Your task to perform on an android device: What's a good restaurant in Atlanta? Image 0: 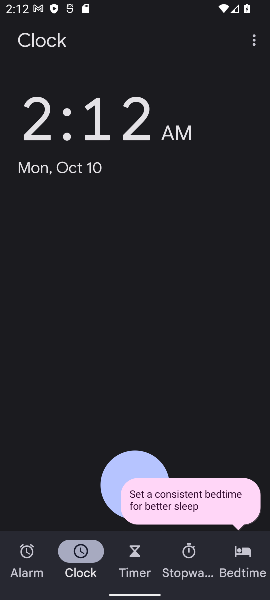
Step 0: press home button
Your task to perform on an android device: What's a good restaurant in Atlanta? Image 1: 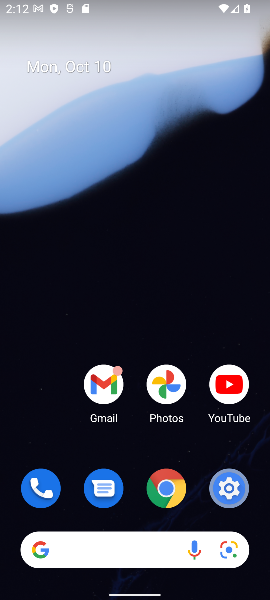
Step 1: click (122, 555)
Your task to perform on an android device: What's a good restaurant in Atlanta? Image 2: 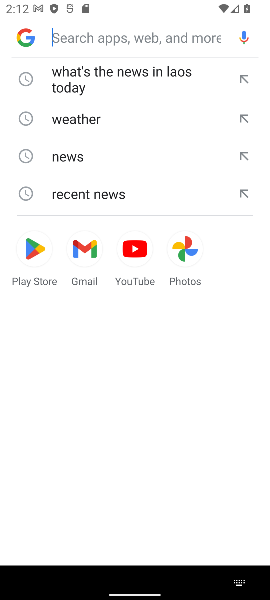
Step 2: click (78, 40)
Your task to perform on an android device: What's a good restaurant in Atlanta? Image 3: 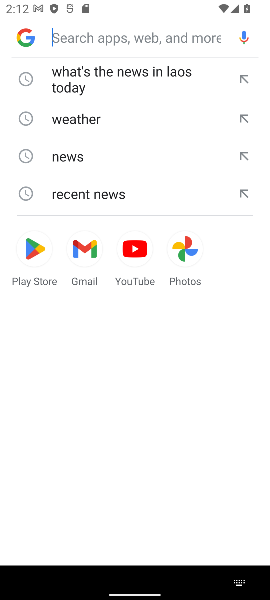
Step 3: type "What's a good restaurant in Atlanta"
Your task to perform on an android device: What's a good restaurant in Atlanta? Image 4: 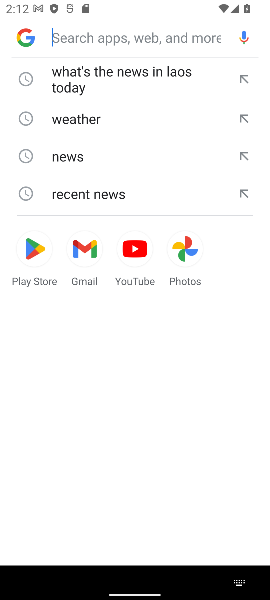
Step 4: click (109, 451)
Your task to perform on an android device: What's a good restaurant in Atlanta? Image 5: 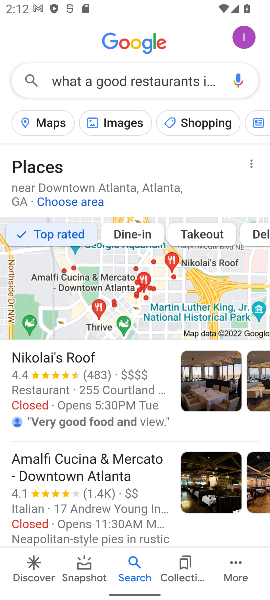
Step 5: task complete